Your task to perform on an android device: check android version Image 0: 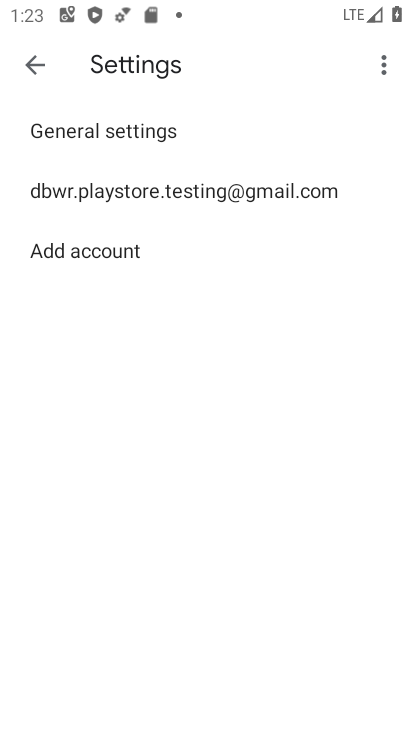
Step 0: press home button
Your task to perform on an android device: check android version Image 1: 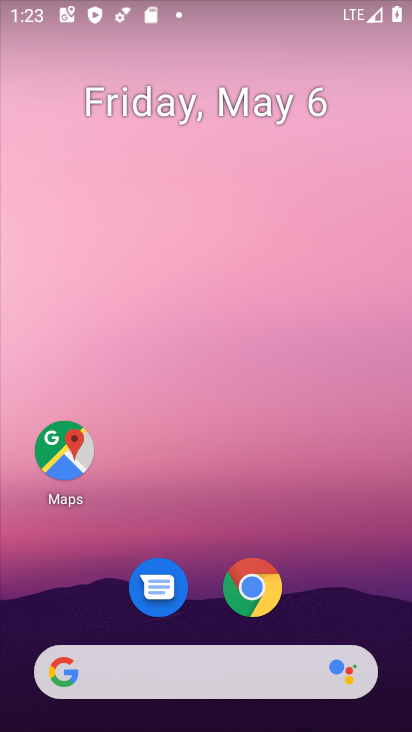
Step 1: drag from (347, 574) to (310, 198)
Your task to perform on an android device: check android version Image 2: 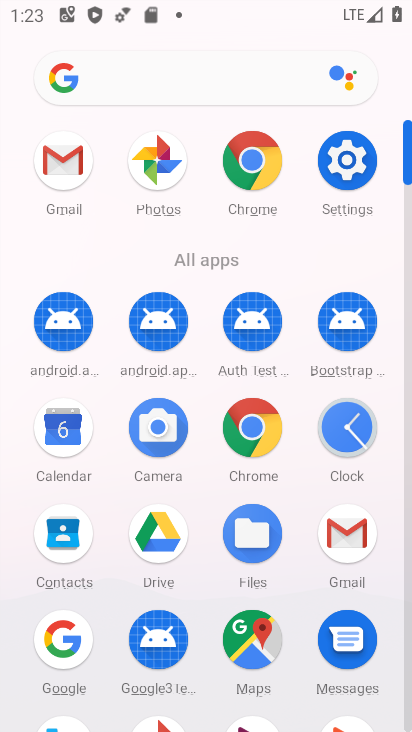
Step 2: click (349, 159)
Your task to perform on an android device: check android version Image 3: 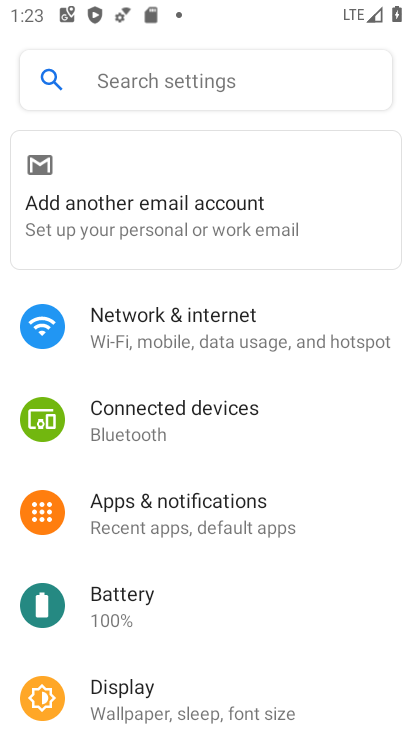
Step 3: drag from (261, 638) to (267, 323)
Your task to perform on an android device: check android version Image 4: 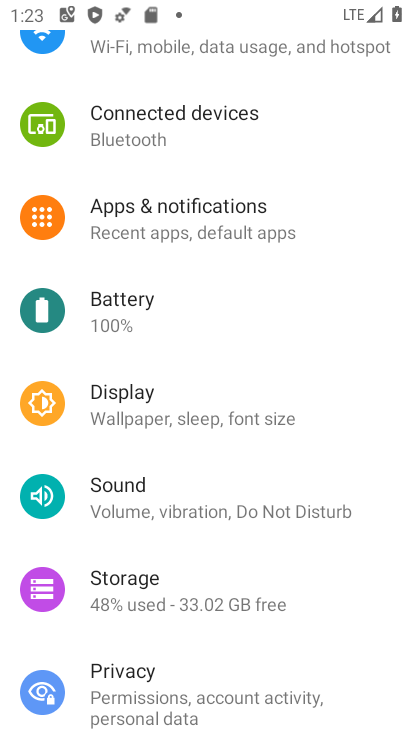
Step 4: drag from (261, 572) to (280, 168)
Your task to perform on an android device: check android version Image 5: 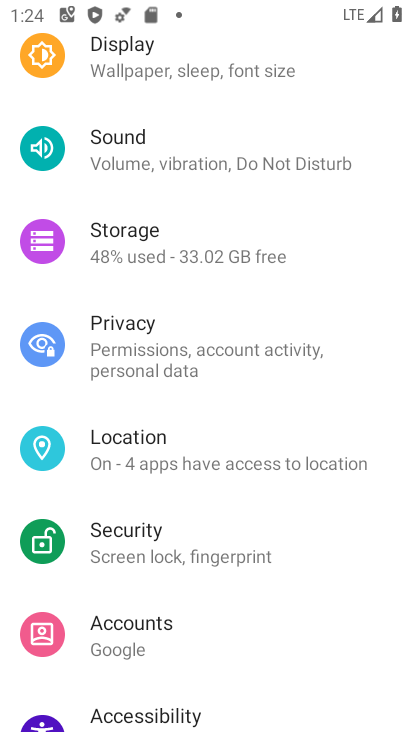
Step 5: drag from (205, 692) to (232, 329)
Your task to perform on an android device: check android version Image 6: 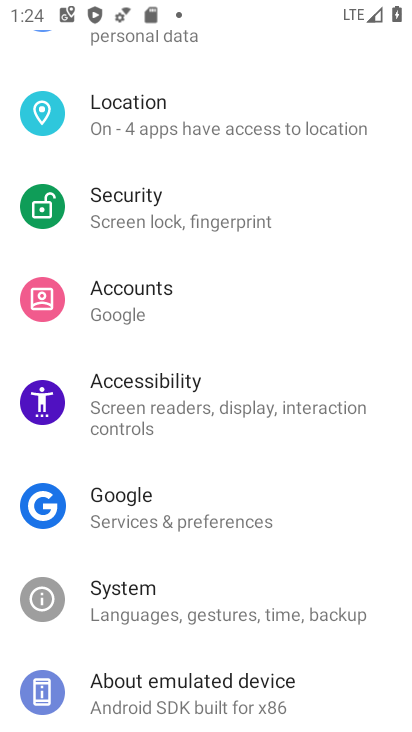
Step 6: click (201, 697)
Your task to perform on an android device: check android version Image 7: 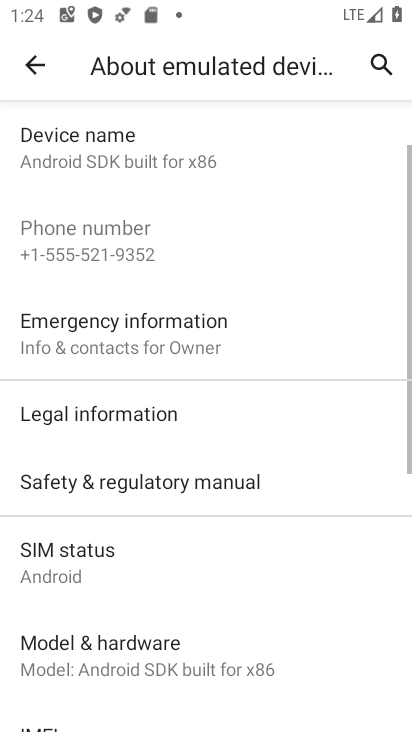
Step 7: drag from (111, 665) to (136, 361)
Your task to perform on an android device: check android version Image 8: 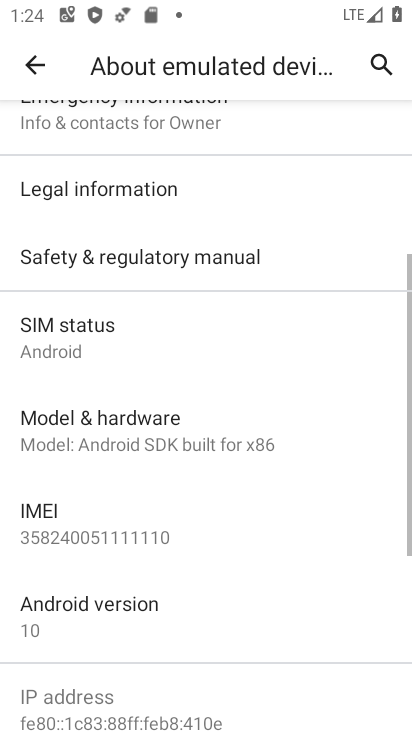
Step 8: click (130, 627)
Your task to perform on an android device: check android version Image 9: 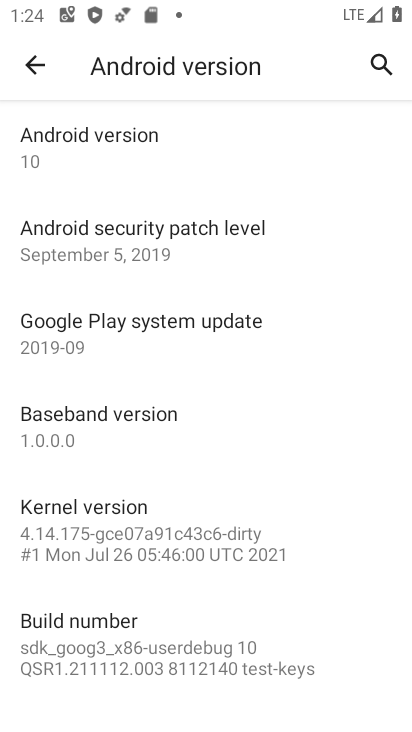
Step 9: task complete